Your task to perform on an android device: read, delete, or share a saved page in the chrome app Image 0: 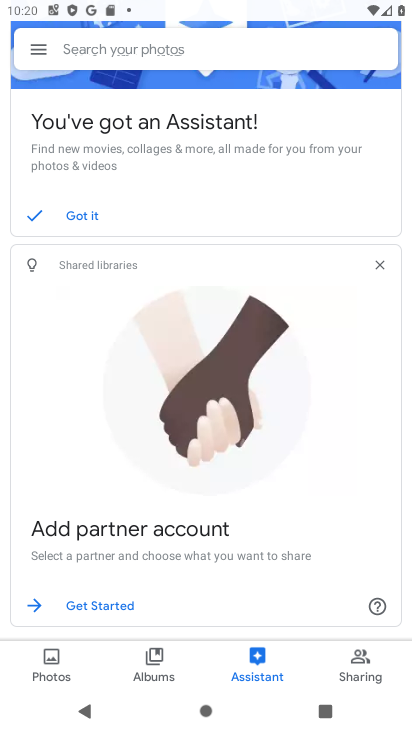
Step 0: press home button
Your task to perform on an android device: read, delete, or share a saved page in the chrome app Image 1: 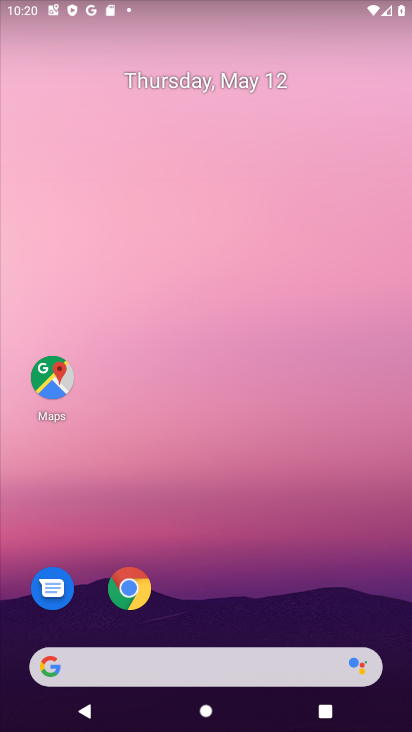
Step 1: click (118, 585)
Your task to perform on an android device: read, delete, or share a saved page in the chrome app Image 2: 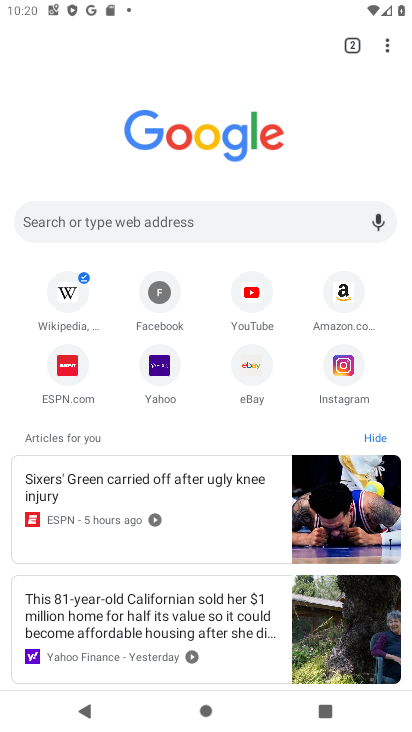
Step 2: click (390, 41)
Your task to perform on an android device: read, delete, or share a saved page in the chrome app Image 3: 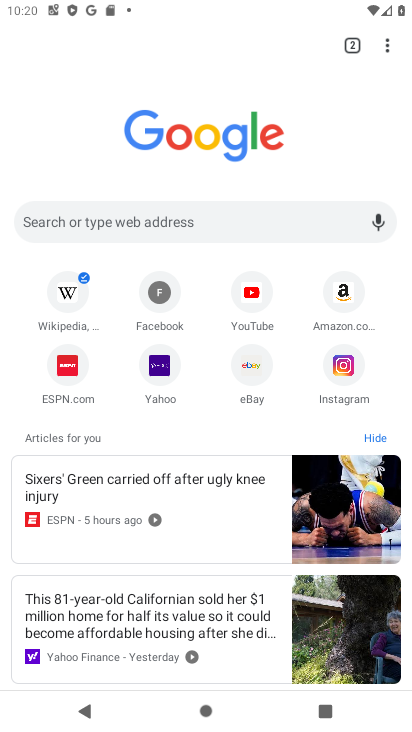
Step 3: click (390, 41)
Your task to perform on an android device: read, delete, or share a saved page in the chrome app Image 4: 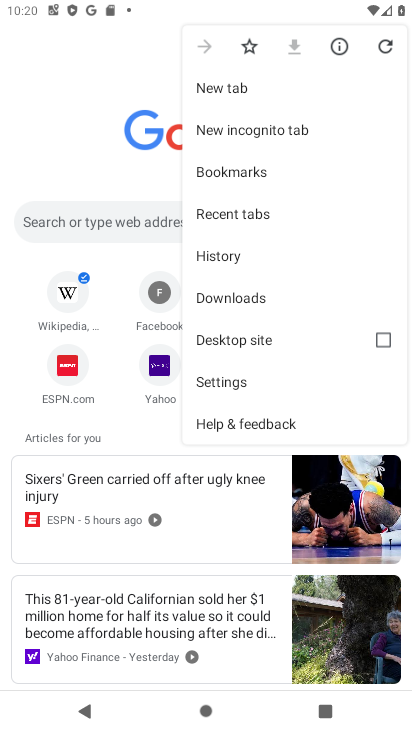
Step 4: click (231, 291)
Your task to perform on an android device: read, delete, or share a saved page in the chrome app Image 5: 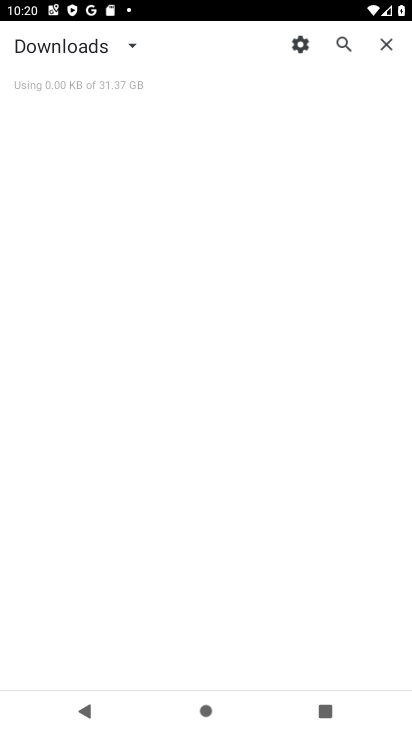
Step 5: click (130, 37)
Your task to perform on an android device: read, delete, or share a saved page in the chrome app Image 6: 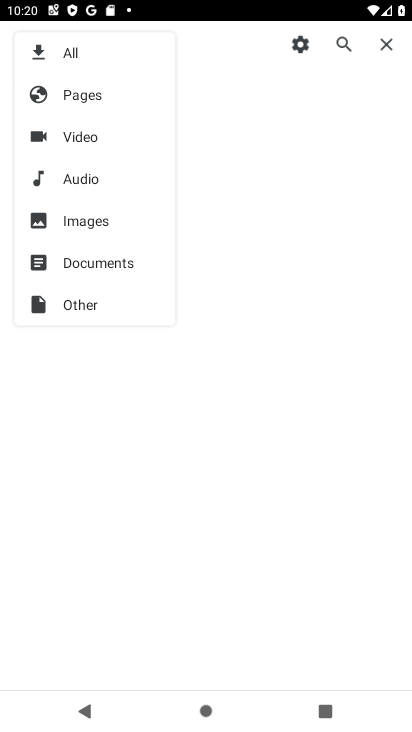
Step 6: click (73, 91)
Your task to perform on an android device: read, delete, or share a saved page in the chrome app Image 7: 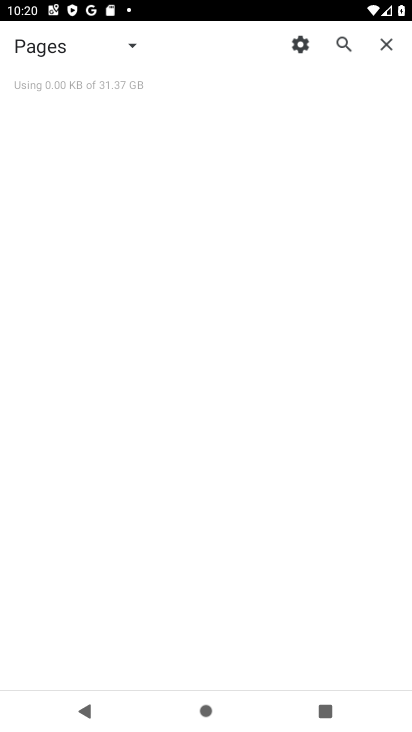
Step 7: task complete